Your task to perform on an android device: turn on location history Image 0: 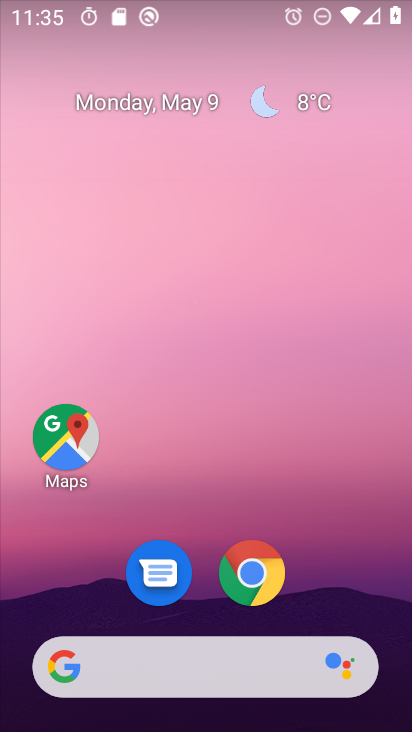
Step 0: drag from (335, 561) to (238, 155)
Your task to perform on an android device: turn on location history Image 1: 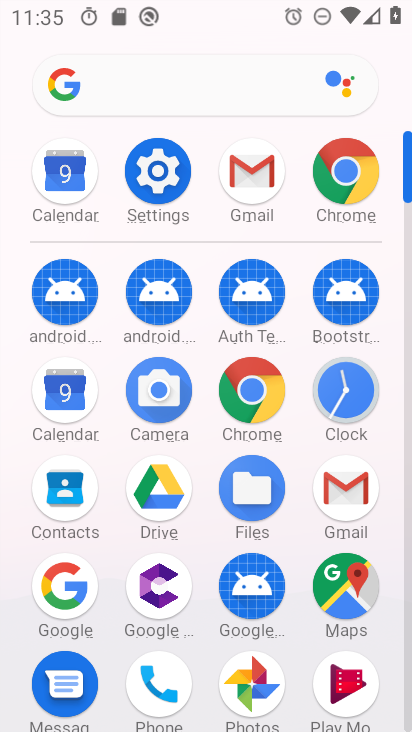
Step 1: click (166, 180)
Your task to perform on an android device: turn on location history Image 2: 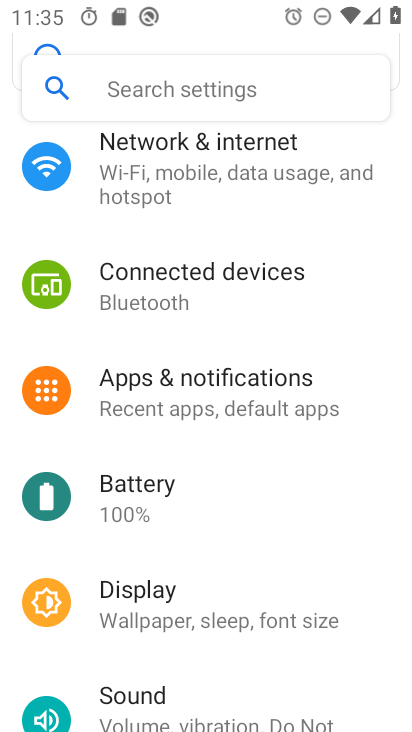
Step 2: drag from (246, 590) to (236, 152)
Your task to perform on an android device: turn on location history Image 3: 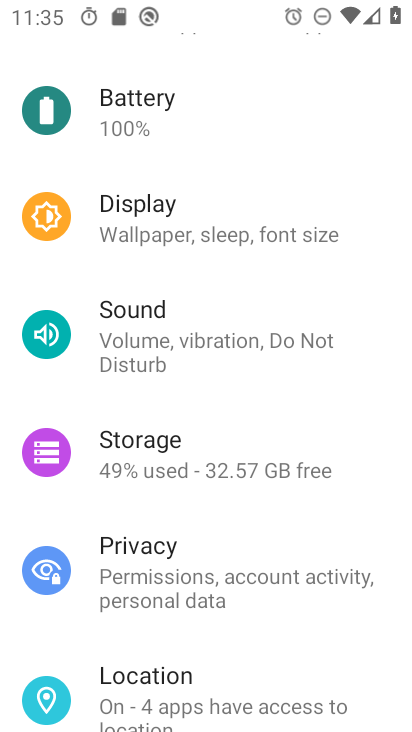
Step 3: drag from (219, 586) to (245, 209)
Your task to perform on an android device: turn on location history Image 4: 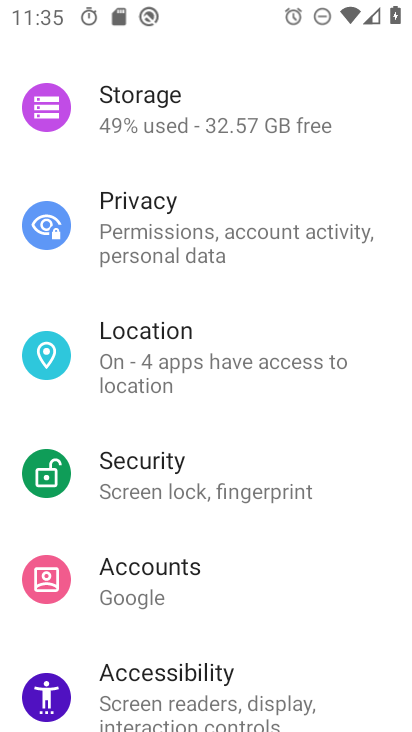
Step 4: click (171, 364)
Your task to perform on an android device: turn on location history Image 5: 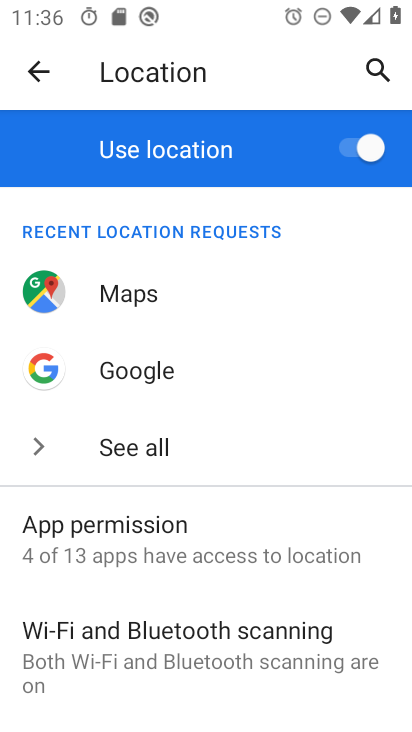
Step 5: drag from (253, 661) to (266, 300)
Your task to perform on an android device: turn on location history Image 6: 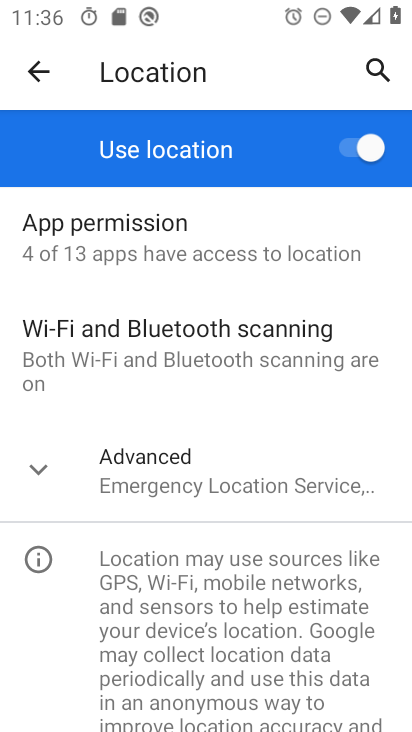
Step 6: click (213, 476)
Your task to perform on an android device: turn on location history Image 7: 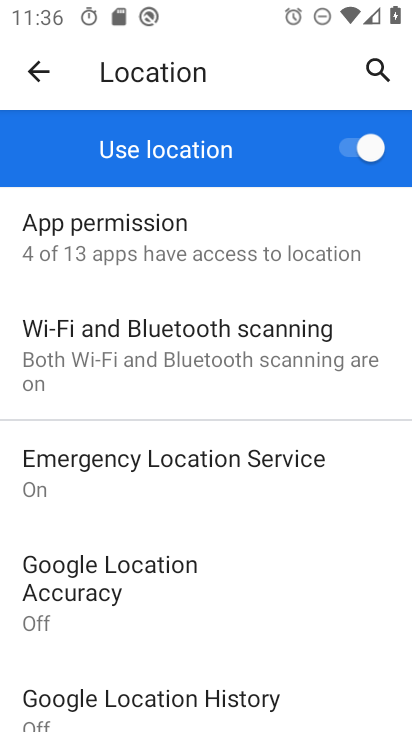
Step 7: drag from (222, 625) to (256, 415)
Your task to perform on an android device: turn on location history Image 8: 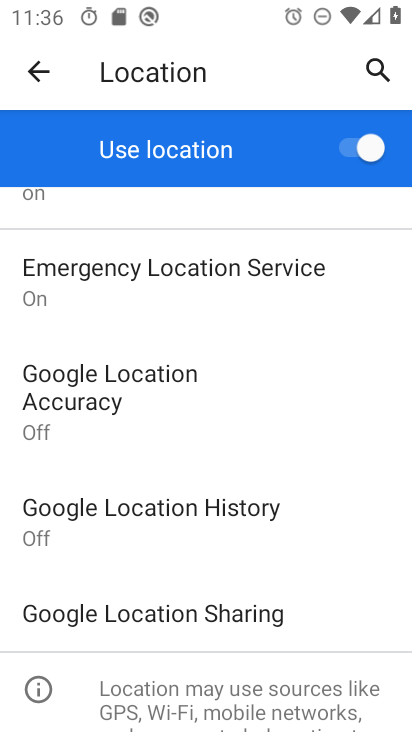
Step 8: click (200, 509)
Your task to perform on an android device: turn on location history Image 9: 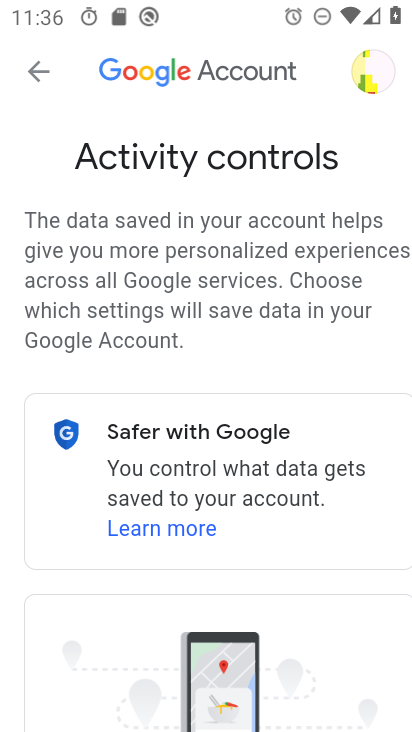
Step 9: task complete